Your task to perform on an android device: Find coffee shops on Maps Image 0: 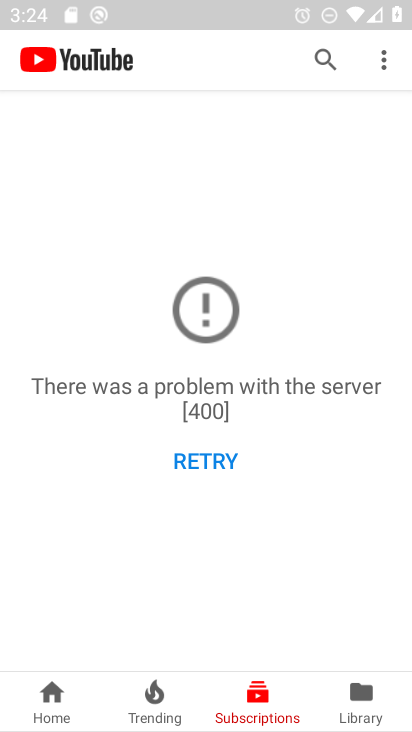
Step 0: press home button
Your task to perform on an android device: Find coffee shops on Maps Image 1: 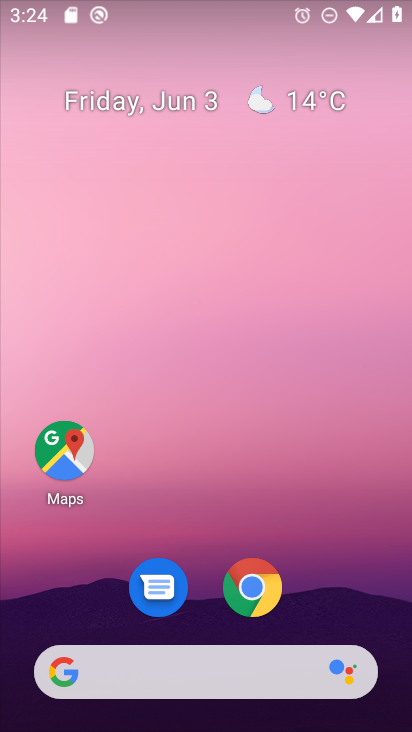
Step 1: drag from (246, 727) to (249, 46)
Your task to perform on an android device: Find coffee shops on Maps Image 2: 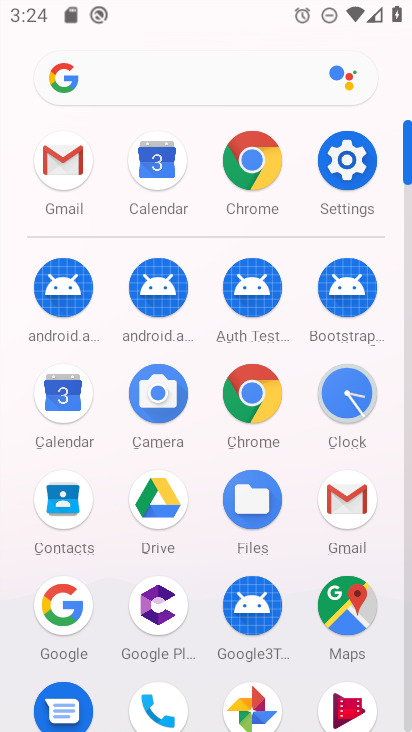
Step 2: click (348, 600)
Your task to perform on an android device: Find coffee shops on Maps Image 3: 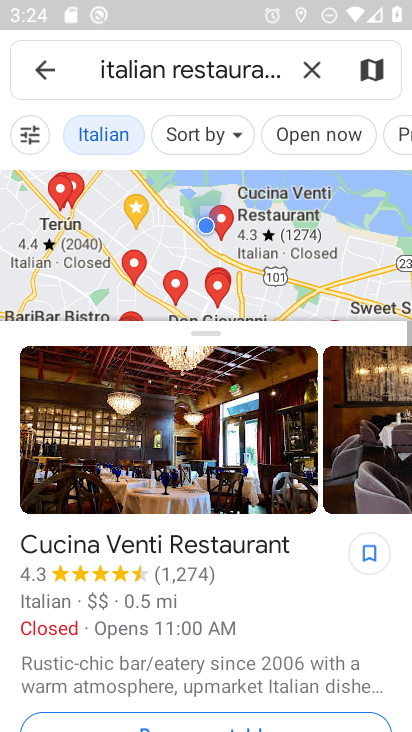
Step 3: click (311, 74)
Your task to perform on an android device: Find coffee shops on Maps Image 4: 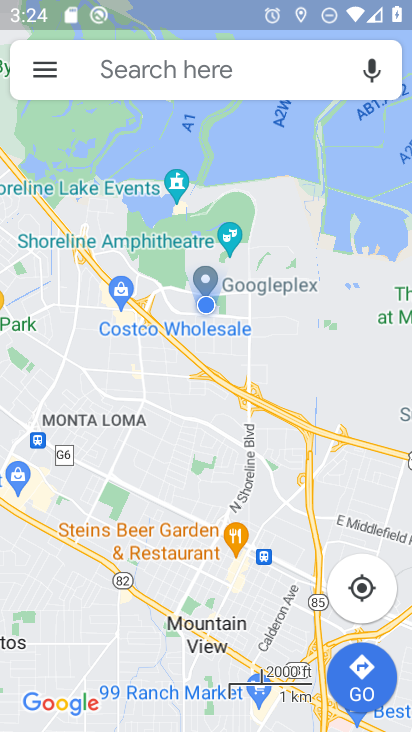
Step 4: click (207, 74)
Your task to perform on an android device: Find coffee shops on Maps Image 5: 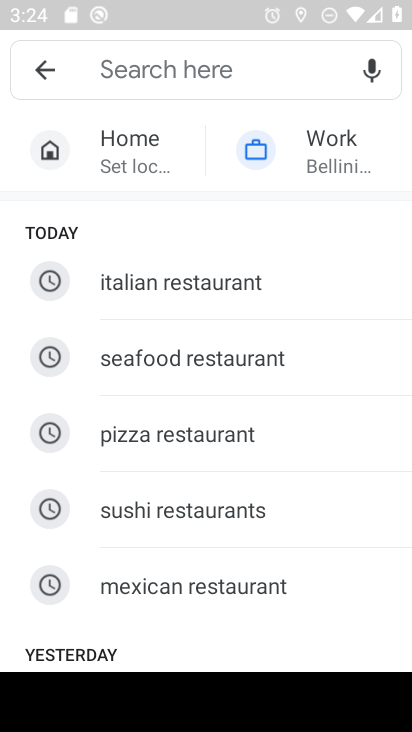
Step 5: type "coffee shops"
Your task to perform on an android device: Find coffee shops on Maps Image 6: 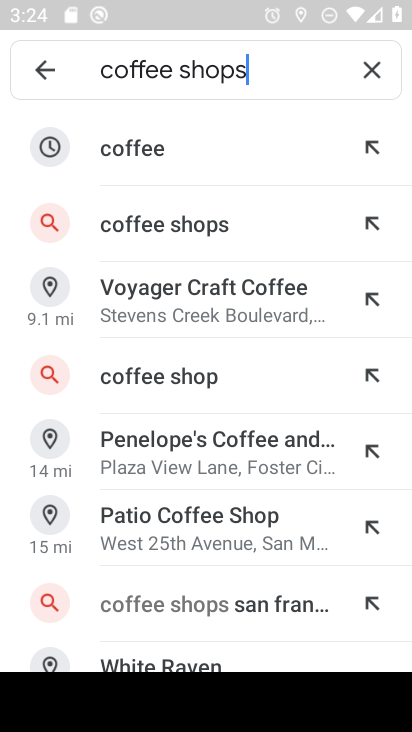
Step 6: click (181, 224)
Your task to perform on an android device: Find coffee shops on Maps Image 7: 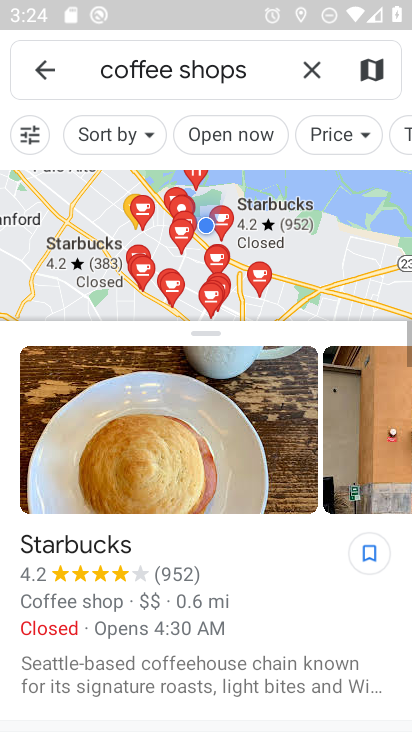
Step 7: task complete